Your task to perform on an android device: toggle show notifications on the lock screen Image 0: 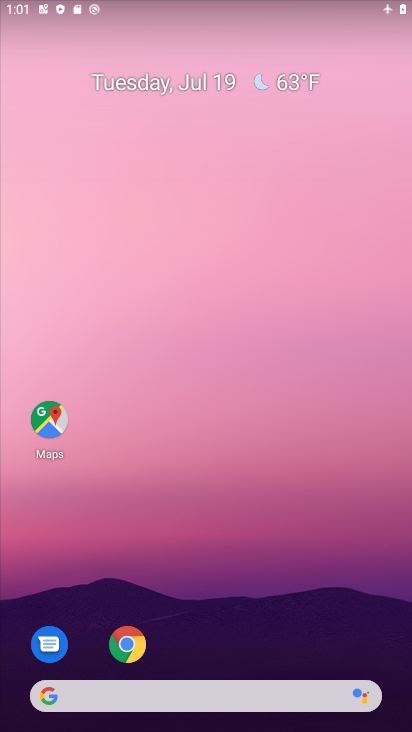
Step 0: drag from (201, 722) to (200, 106)
Your task to perform on an android device: toggle show notifications on the lock screen Image 1: 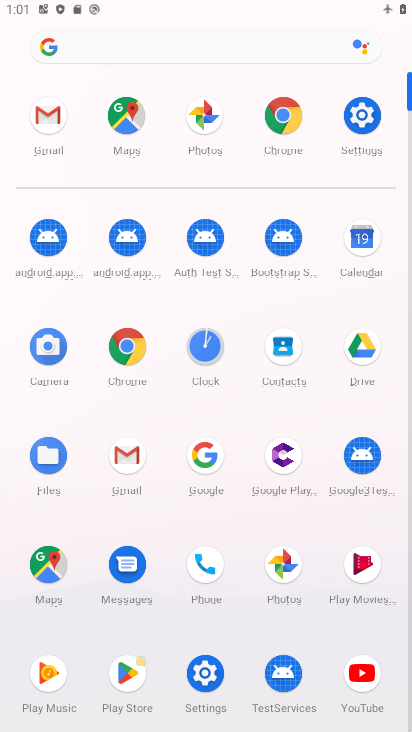
Step 1: click (360, 110)
Your task to perform on an android device: toggle show notifications on the lock screen Image 2: 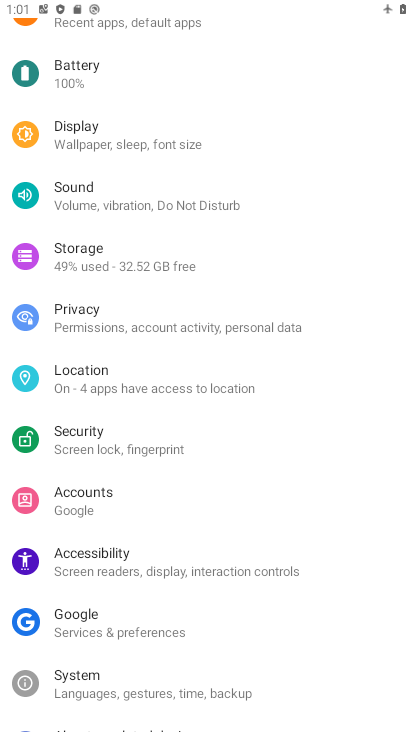
Step 2: drag from (175, 125) to (171, 583)
Your task to perform on an android device: toggle show notifications on the lock screen Image 3: 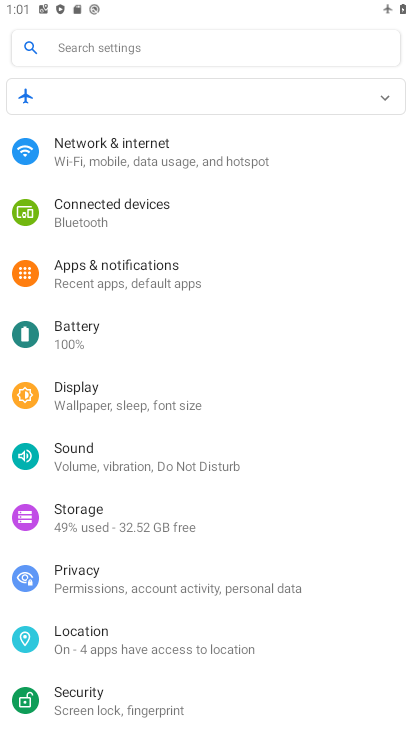
Step 3: click (124, 280)
Your task to perform on an android device: toggle show notifications on the lock screen Image 4: 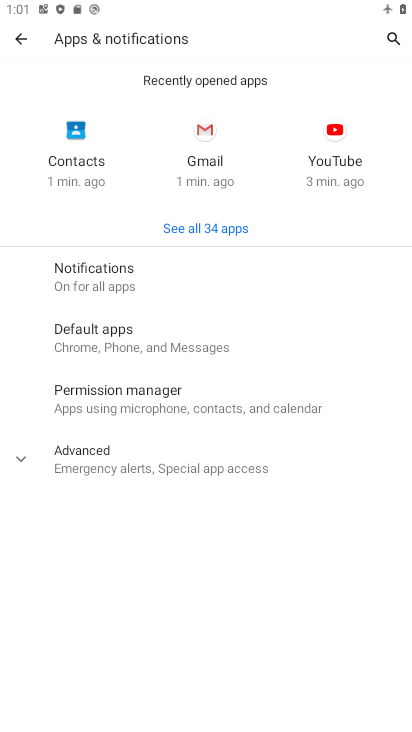
Step 4: click (105, 276)
Your task to perform on an android device: toggle show notifications on the lock screen Image 5: 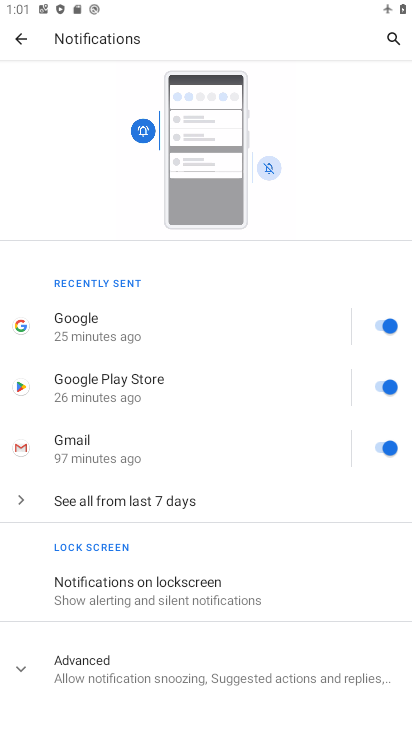
Step 5: click (112, 591)
Your task to perform on an android device: toggle show notifications on the lock screen Image 6: 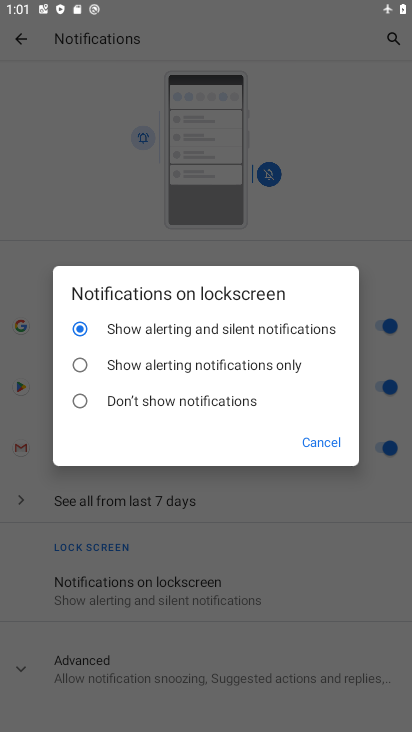
Step 6: click (78, 362)
Your task to perform on an android device: toggle show notifications on the lock screen Image 7: 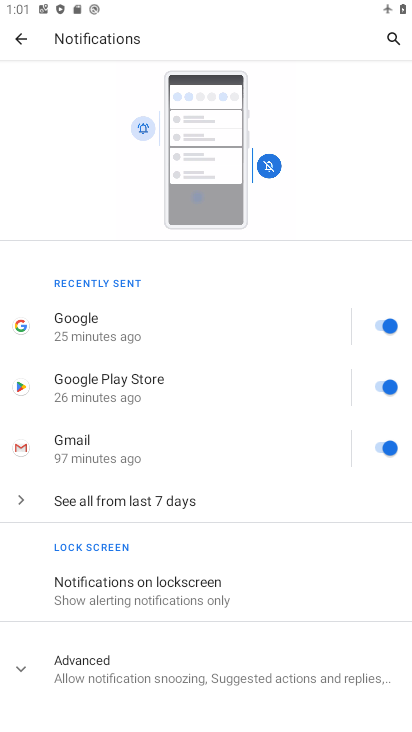
Step 7: task complete